Your task to perform on an android device: Open network settings Image 0: 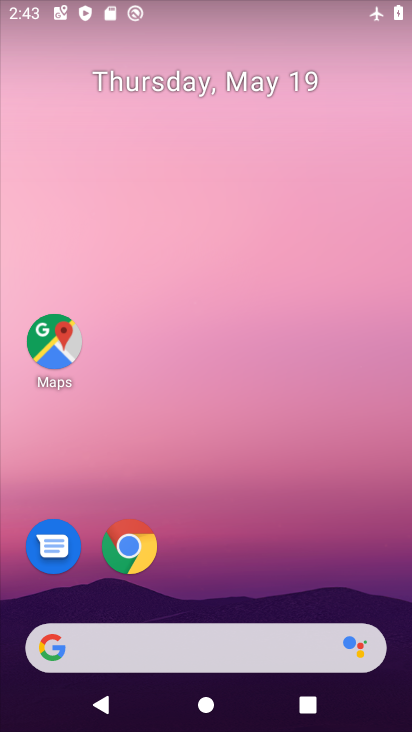
Step 0: drag from (277, 579) to (250, 164)
Your task to perform on an android device: Open network settings Image 1: 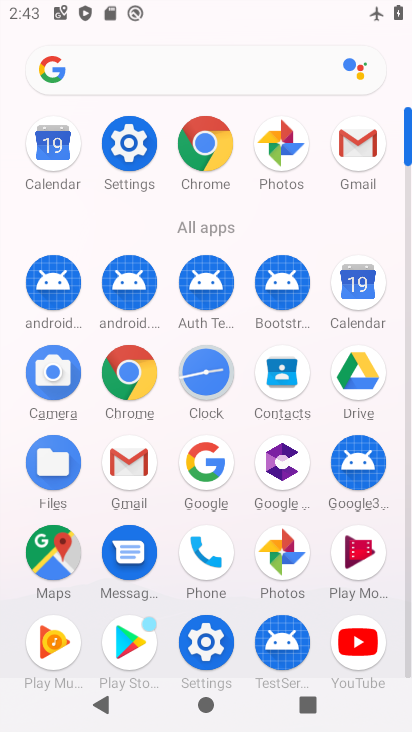
Step 1: click (126, 146)
Your task to perform on an android device: Open network settings Image 2: 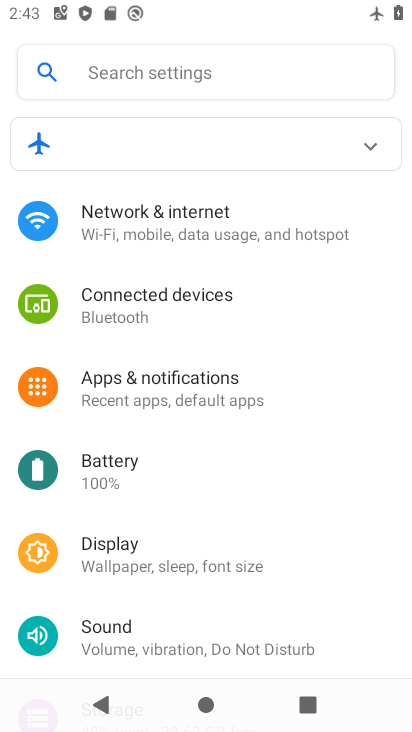
Step 2: click (159, 212)
Your task to perform on an android device: Open network settings Image 3: 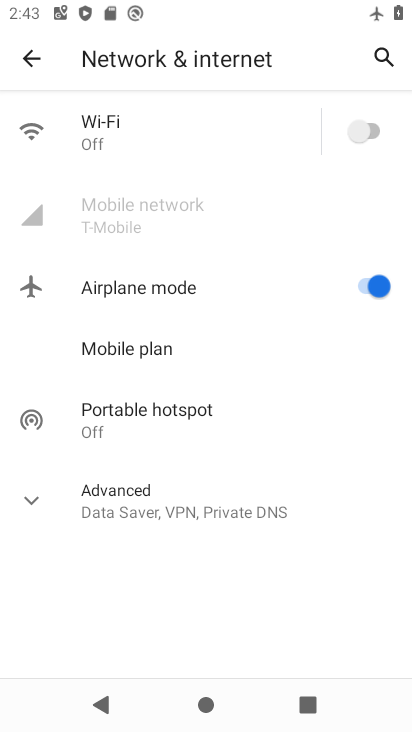
Step 3: task complete